Your task to perform on an android device: turn off airplane mode Image 0: 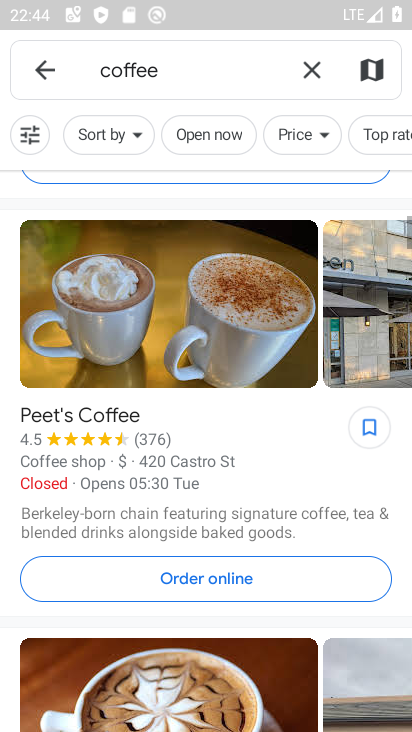
Step 0: press home button
Your task to perform on an android device: turn off airplane mode Image 1: 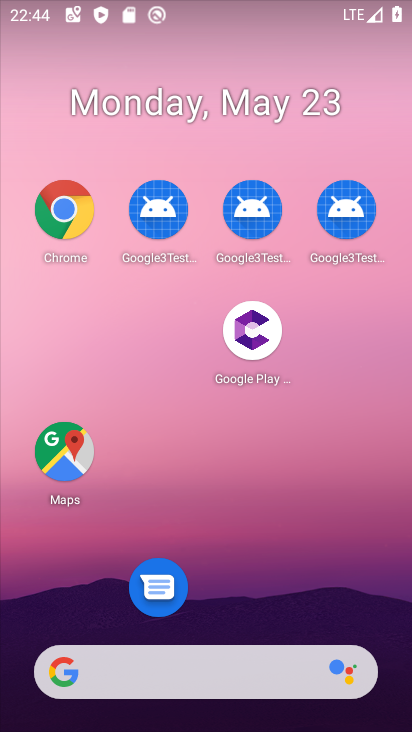
Step 1: drag from (276, 552) to (213, 59)
Your task to perform on an android device: turn off airplane mode Image 2: 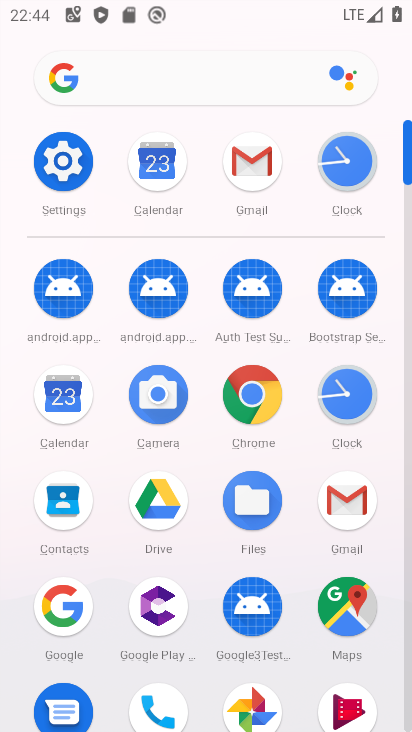
Step 2: click (64, 167)
Your task to perform on an android device: turn off airplane mode Image 3: 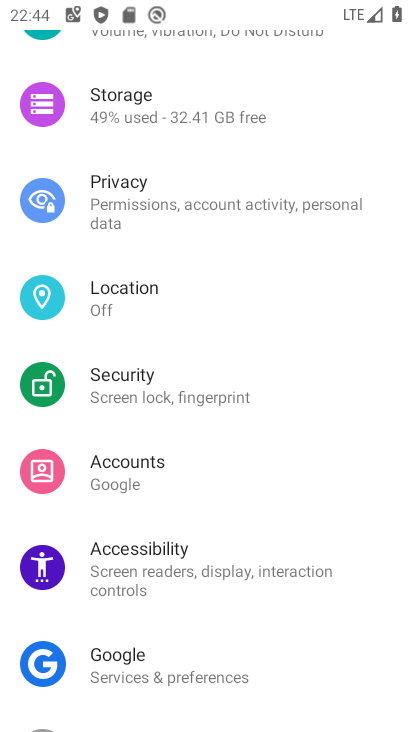
Step 3: drag from (181, 195) to (188, 612)
Your task to perform on an android device: turn off airplane mode Image 4: 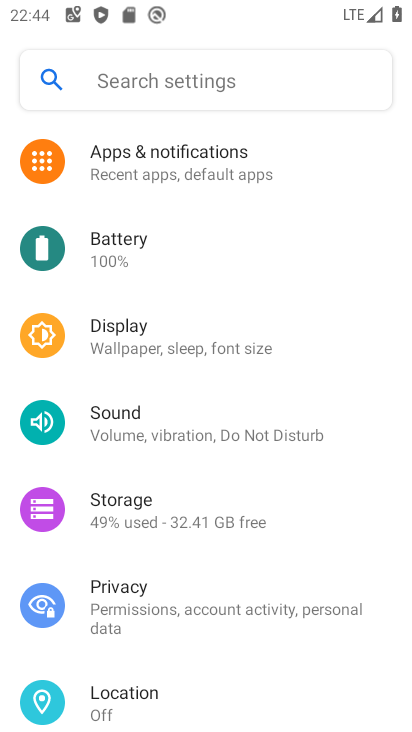
Step 4: drag from (167, 164) to (148, 516)
Your task to perform on an android device: turn off airplane mode Image 5: 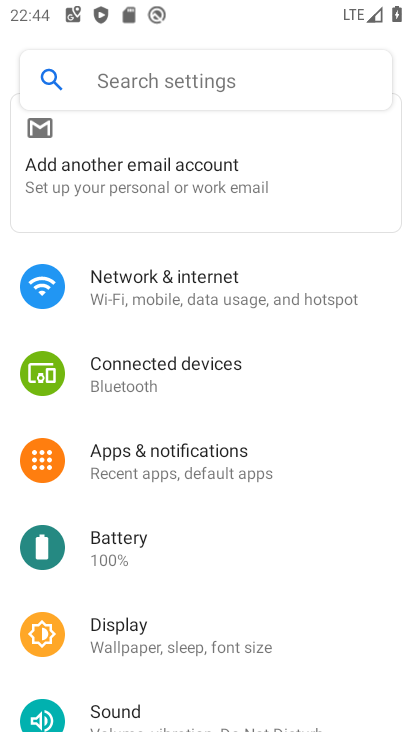
Step 5: click (174, 285)
Your task to perform on an android device: turn off airplane mode Image 6: 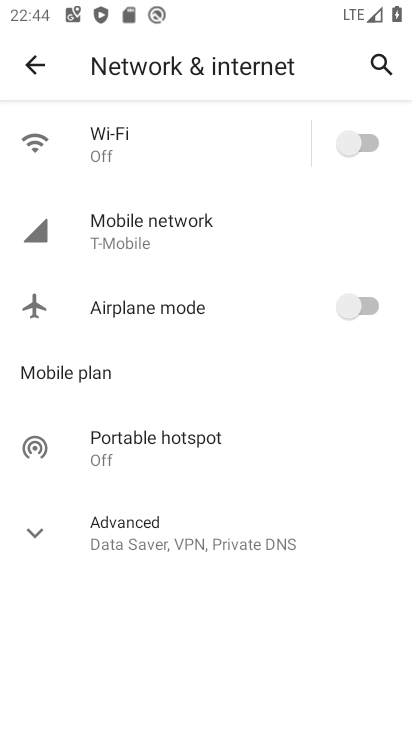
Step 6: task complete